Your task to perform on an android device: Do I have any events tomorrow? Image 0: 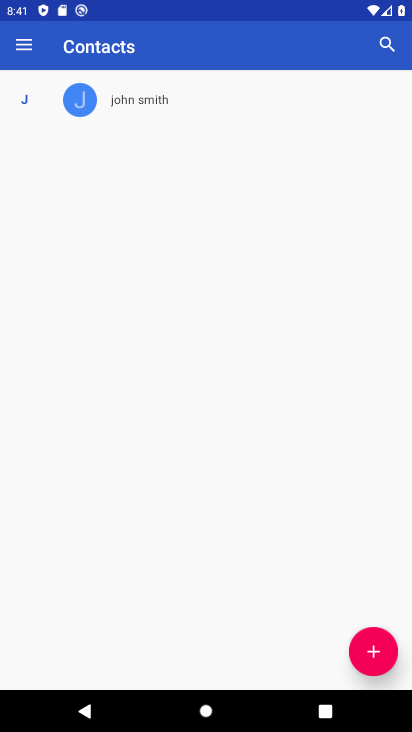
Step 0: press home button
Your task to perform on an android device: Do I have any events tomorrow? Image 1: 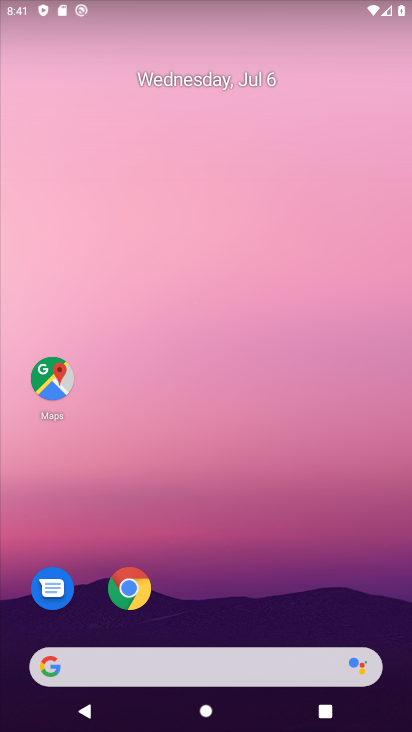
Step 1: drag from (187, 626) to (273, 88)
Your task to perform on an android device: Do I have any events tomorrow? Image 2: 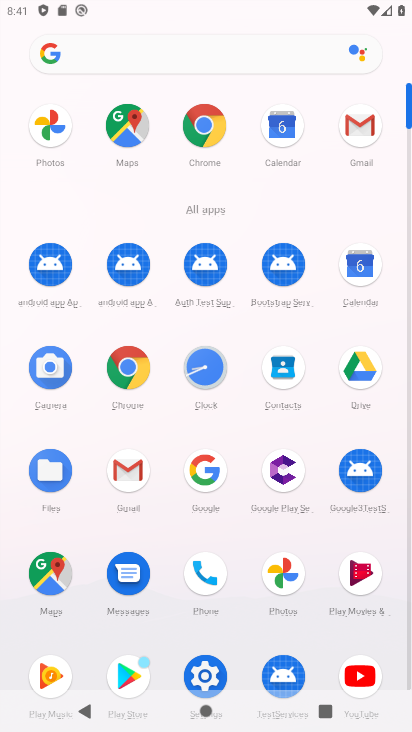
Step 2: click (357, 258)
Your task to perform on an android device: Do I have any events tomorrow? Image 3: 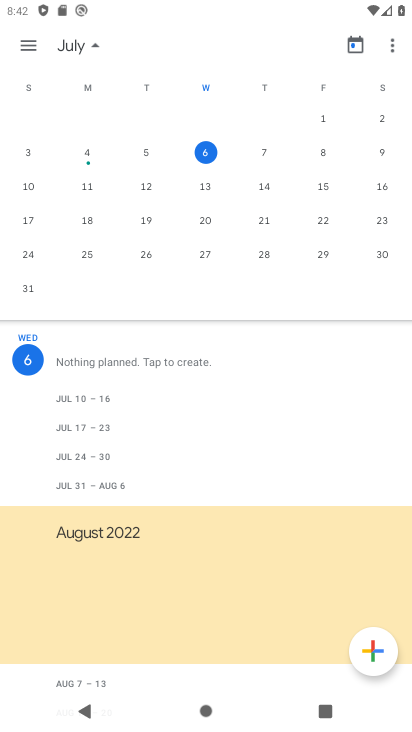
Step 3: click (269, 157)
Your task to perform on an android device: Do I have any events tomorrow? Image 4: 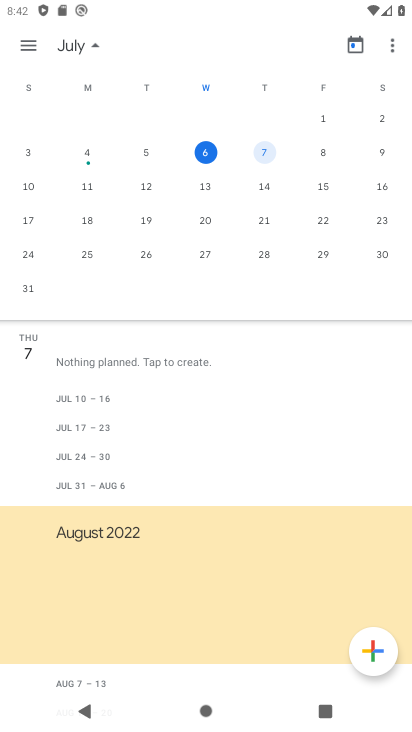
Step 4: task complete